Your task to perform on an android device: Open display settings Image 0: 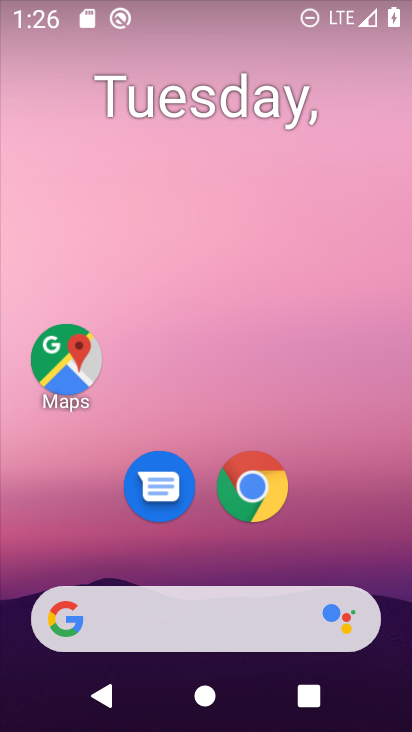
Step 0: drag from (212, 532) to (274, 90)
Your task to perform on an android device: Open display settings Image 1: 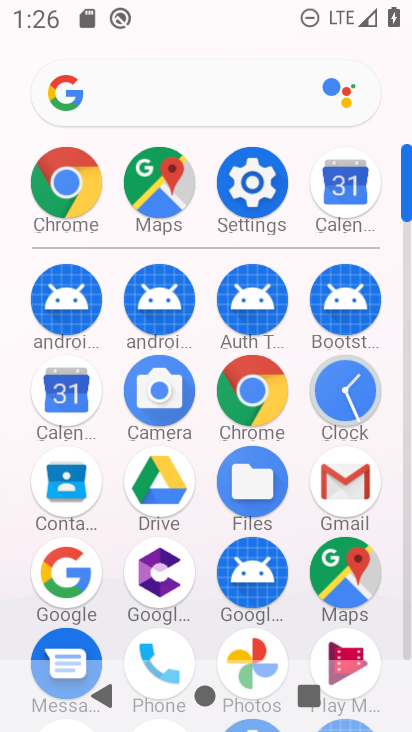
Step 1: drag from (218, 257) to (241, 19)
Your task to perform on an android device: Open display settings Image 2: 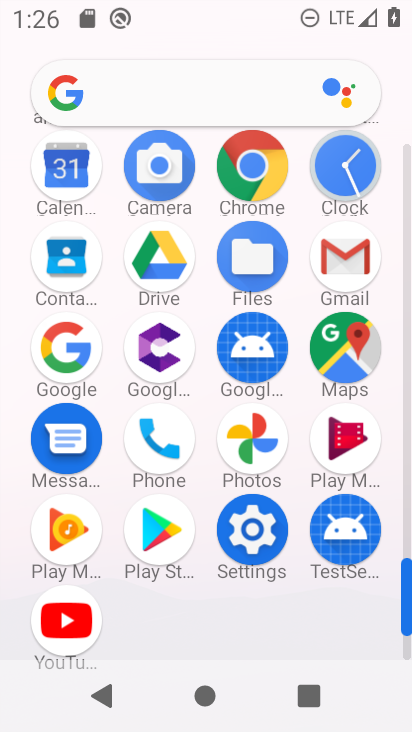
Step 2: click (239, 529)
Your task to perform on an android device: Open display settings Image 3: 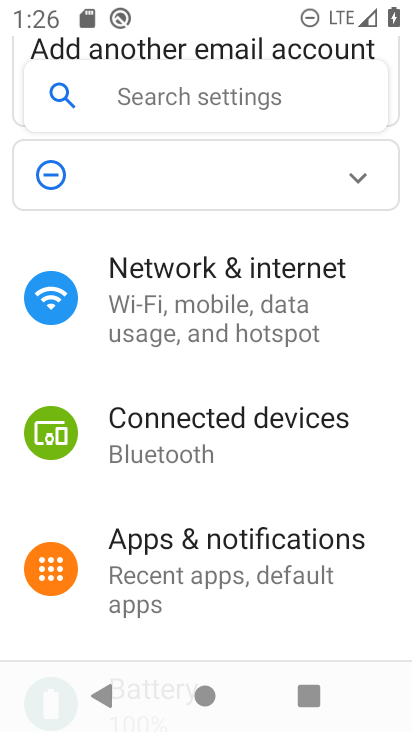
Step 3: drag from (155, 491) to (172, 137)
Your task to perform on an android device: Open display settings Image 4: 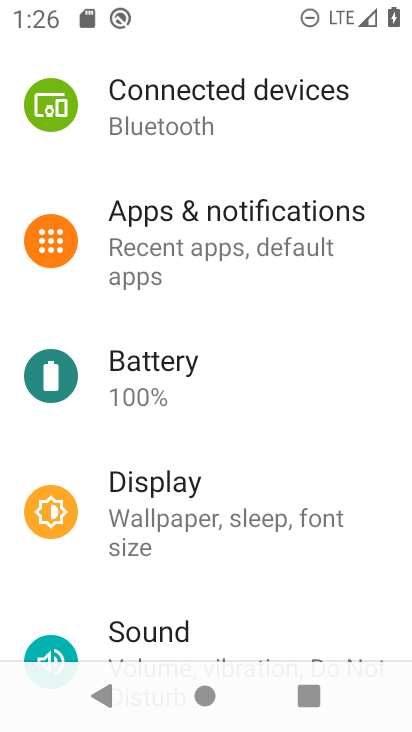
Step 4: click (190, 523)
Your task to perform on an android device: Open display settings Image 5: 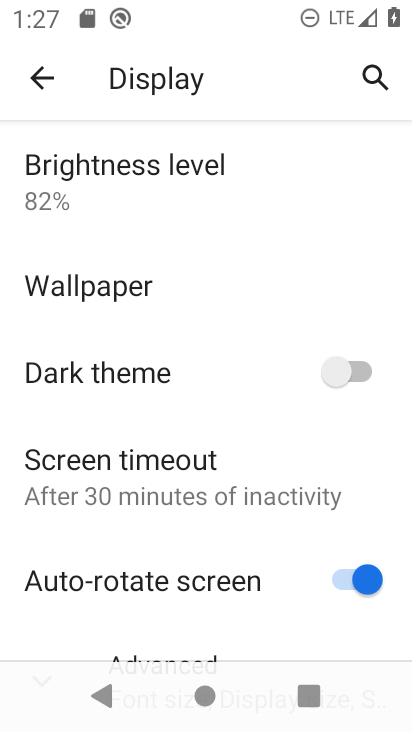
Step 5: task complete